Your task to perform on an android device: Open maps Image 0: 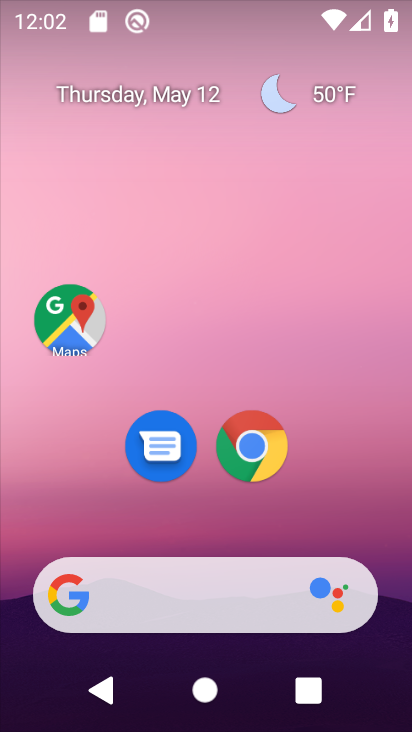
Step 0: click (315, 16)
Your task to perform on an android device: Open maps Image 1: 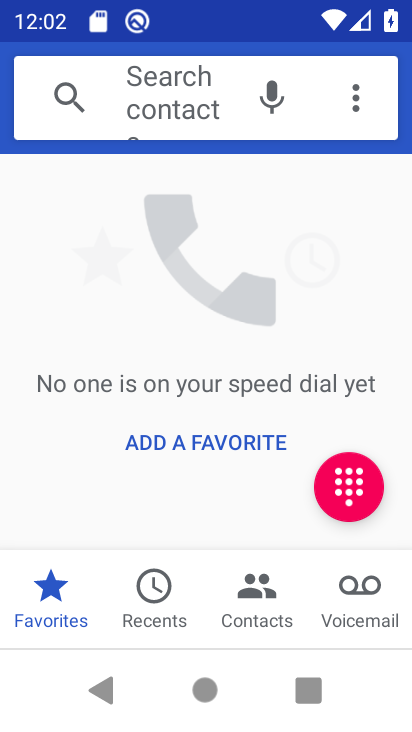
Step 1: press home button
Your task to perform on an android device: Open maps Image 2: 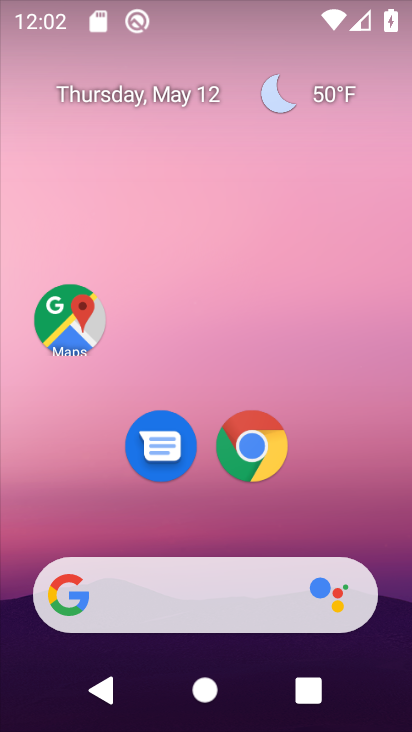
Step 2: click (71, 351)
Your task to perform on an android device: Open maps Image 3: 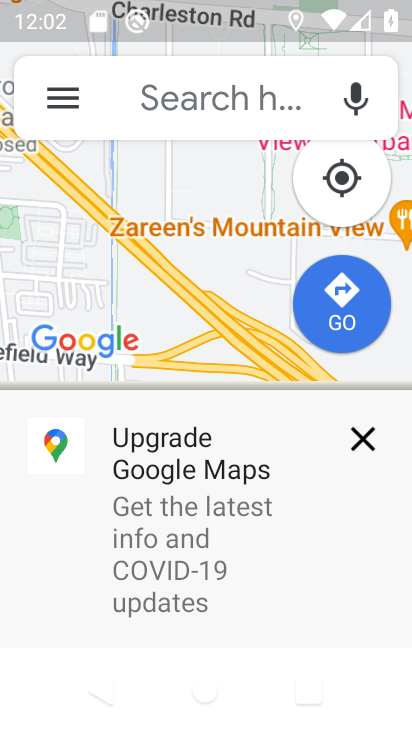
Step 3: task complete